Your task to perform on an android device: star an email in the gmail app Image 0: 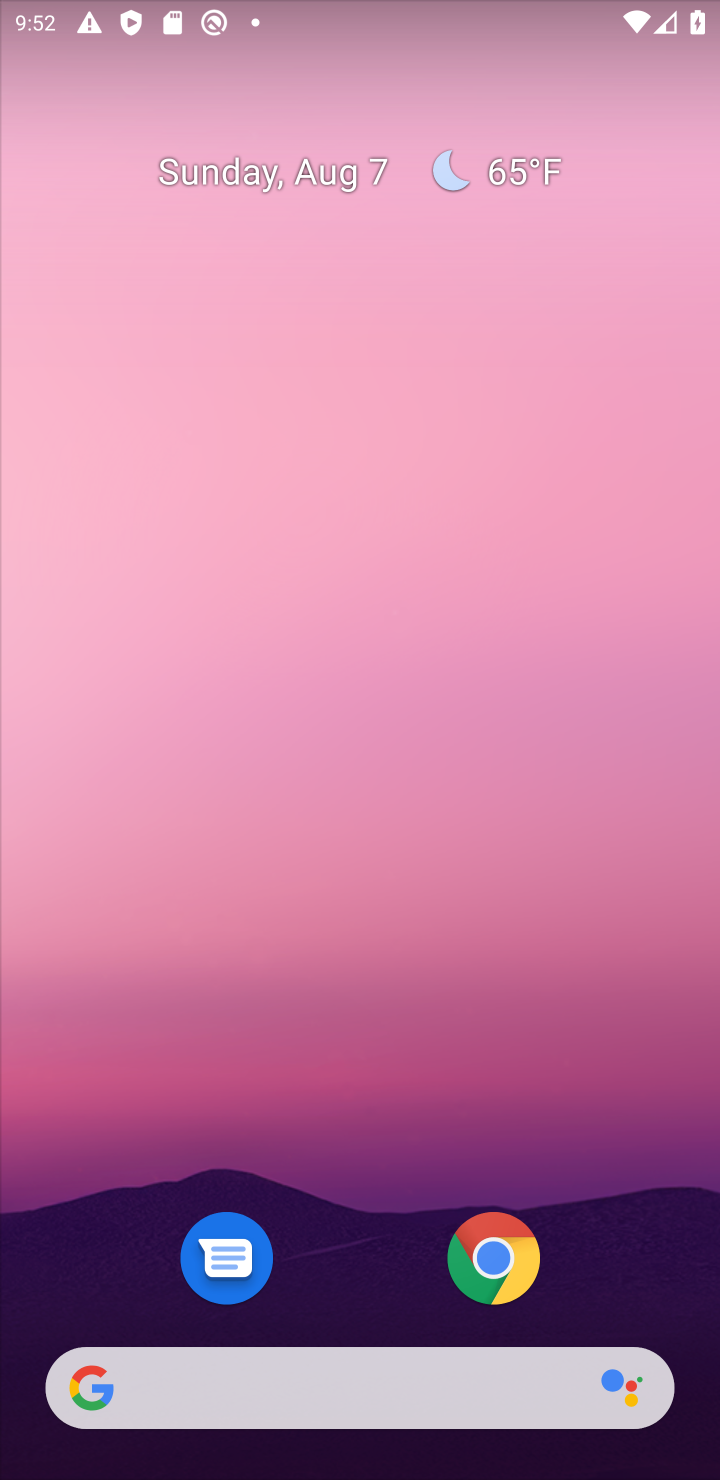
Step 0: press home button
Your task to perform on an android device: star an email in the gmail app Image 1: 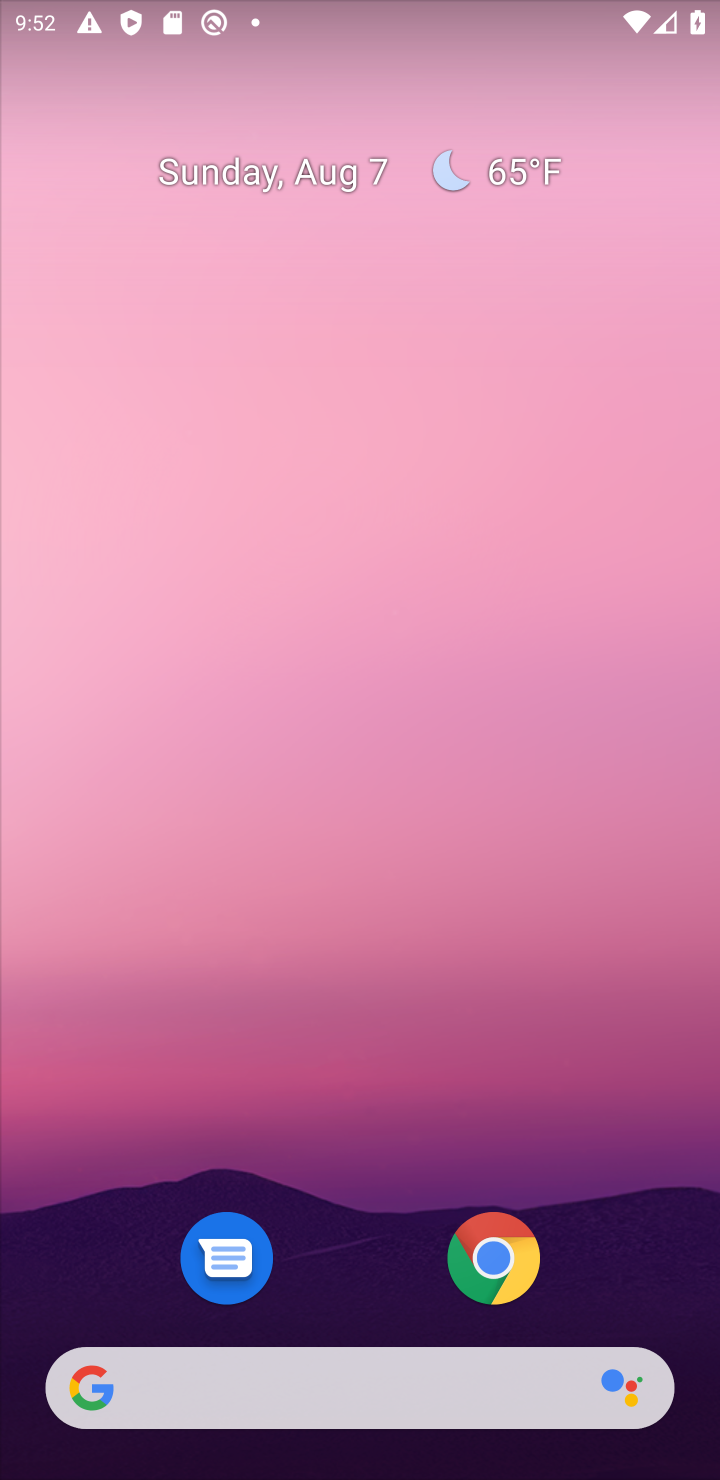
Step 1: press home button
Your task to perform on an android device: star an email in the gmail app Image 2: 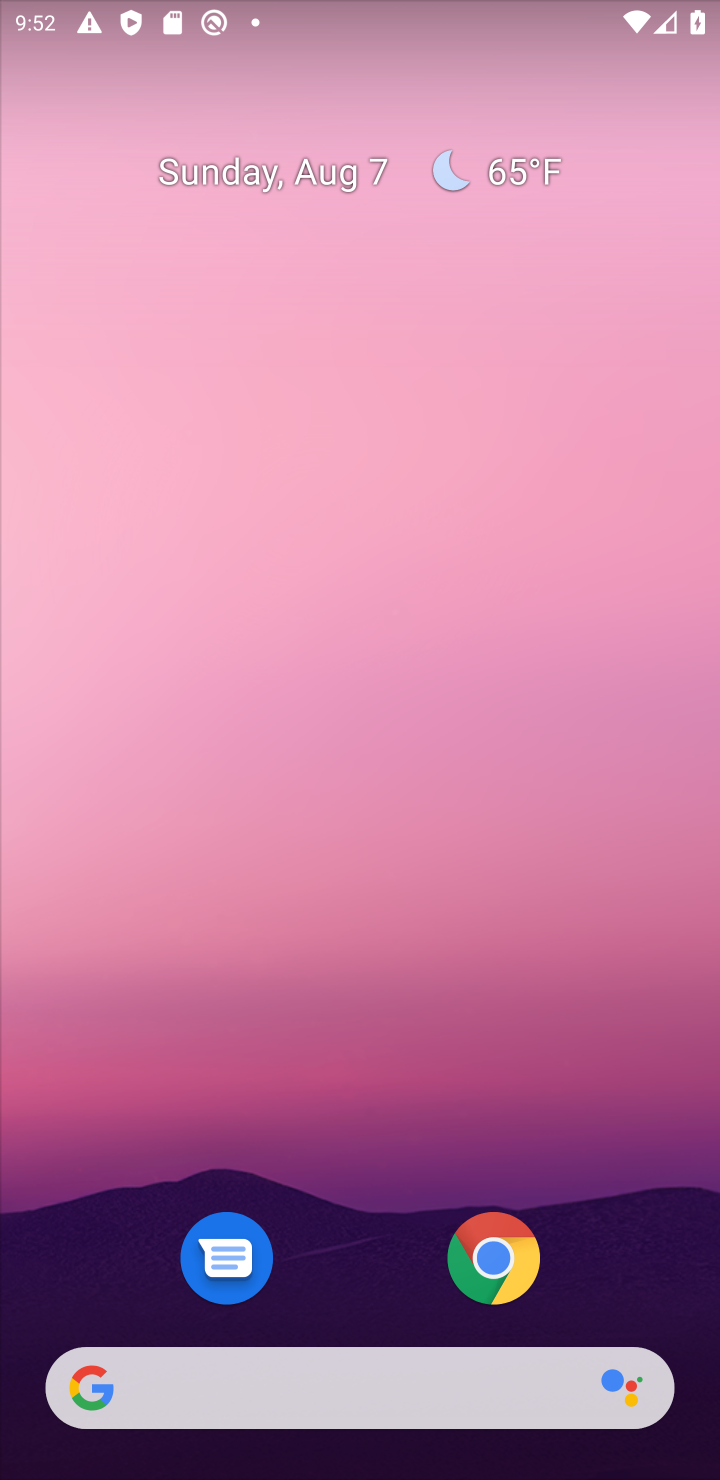
Step 2: drag from (376, 1105) to (345, 134)
Your task to perform on an android device: star an email in the gmail app Image 3: 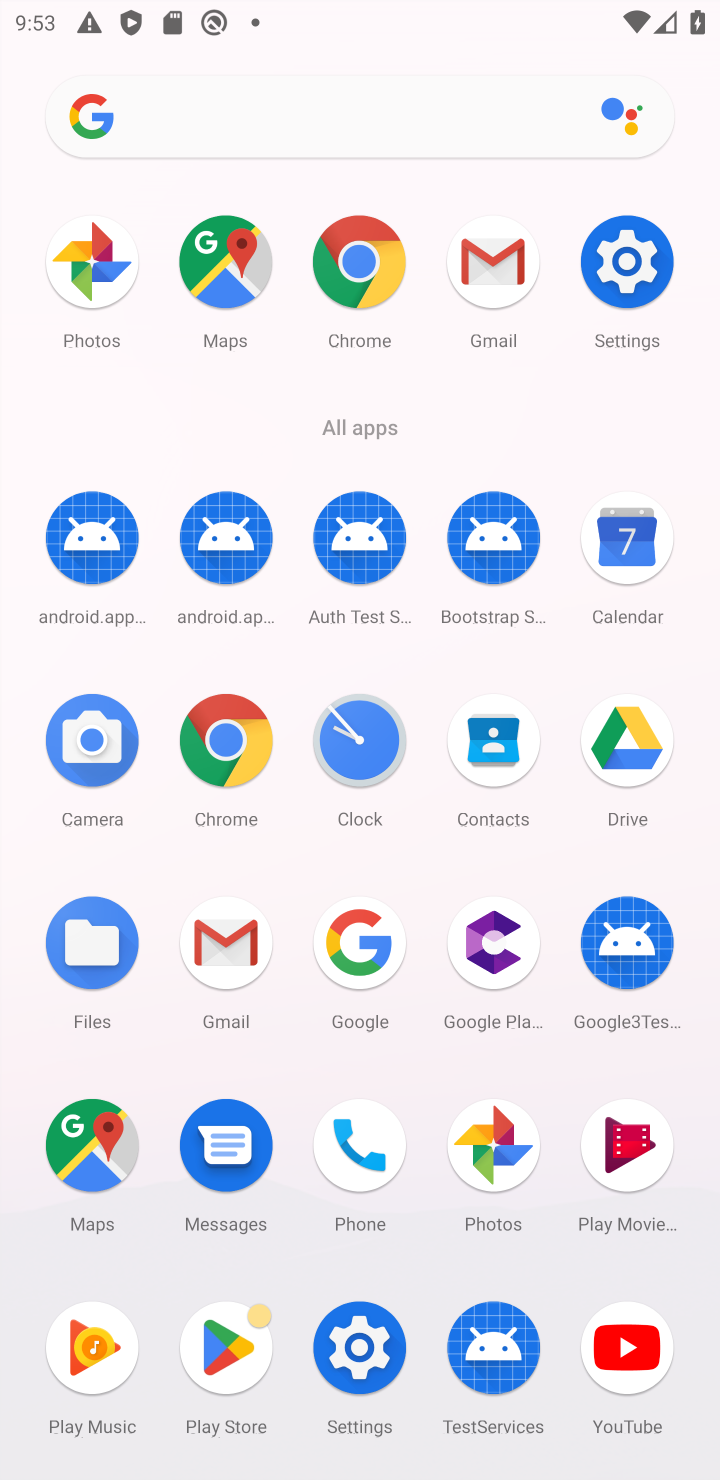
Step 3: click (526, 277)
Your task to perform on an android device: star an email in the gmail app Image 4: 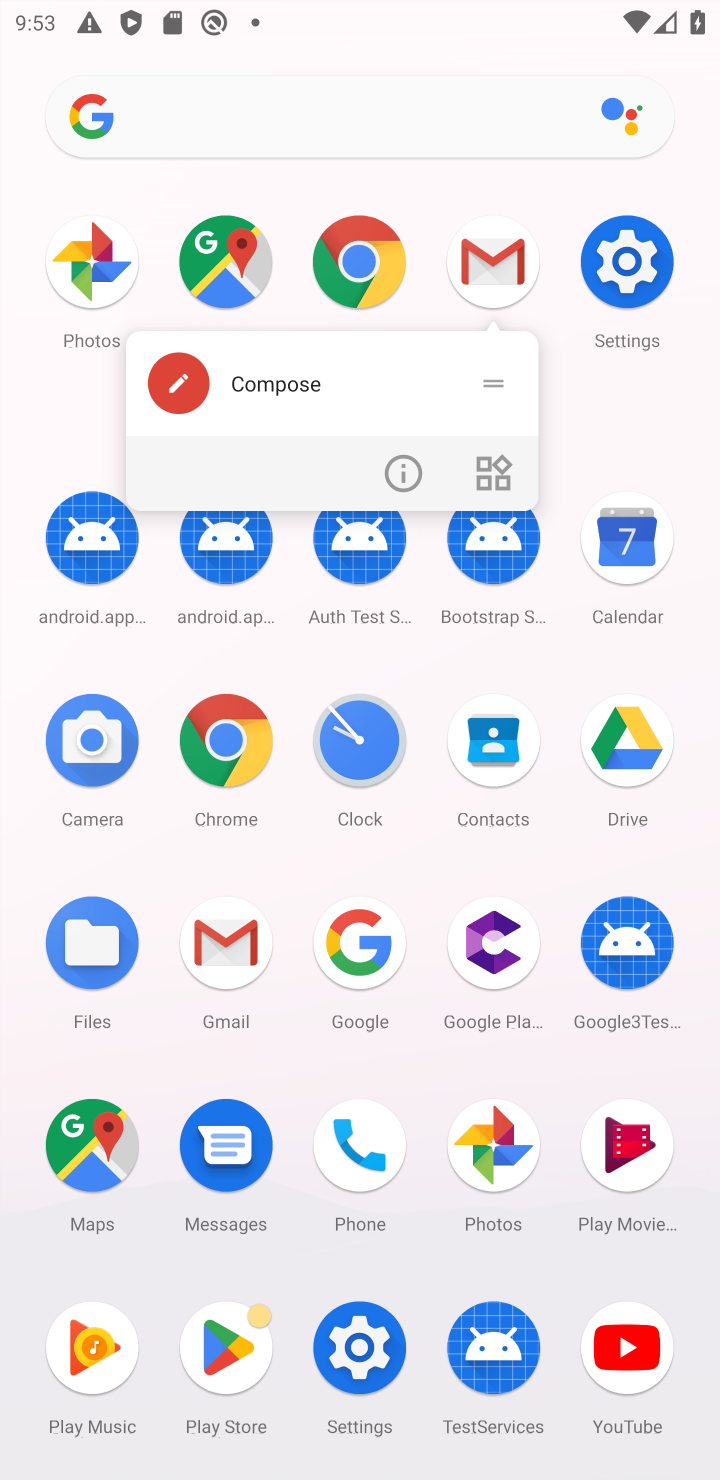
Step 4: click (479, 253)
Your task to perform on an android device: star an email in the gmail app Image 5: 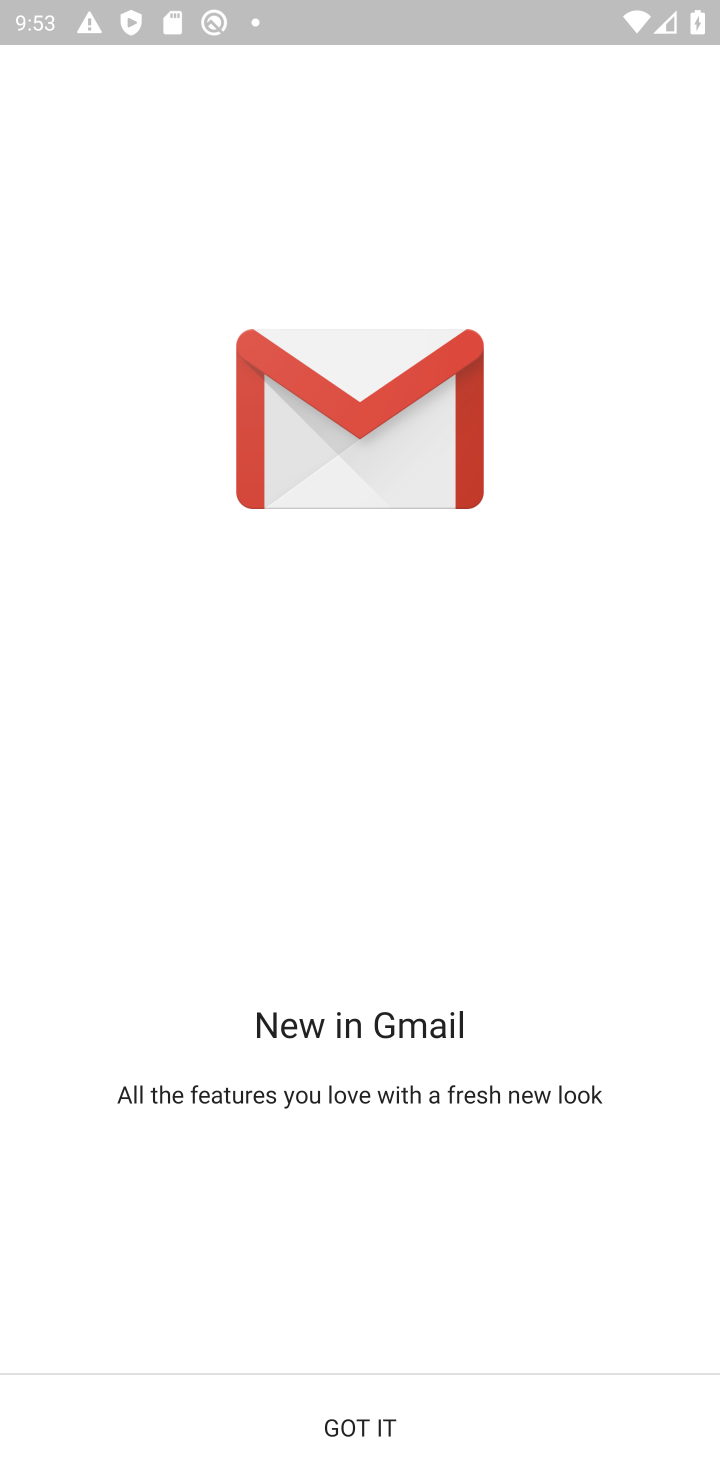
Step 5: click (474, 1428)
Your task to perform on an android device: star an email in the gmail app Image 6: 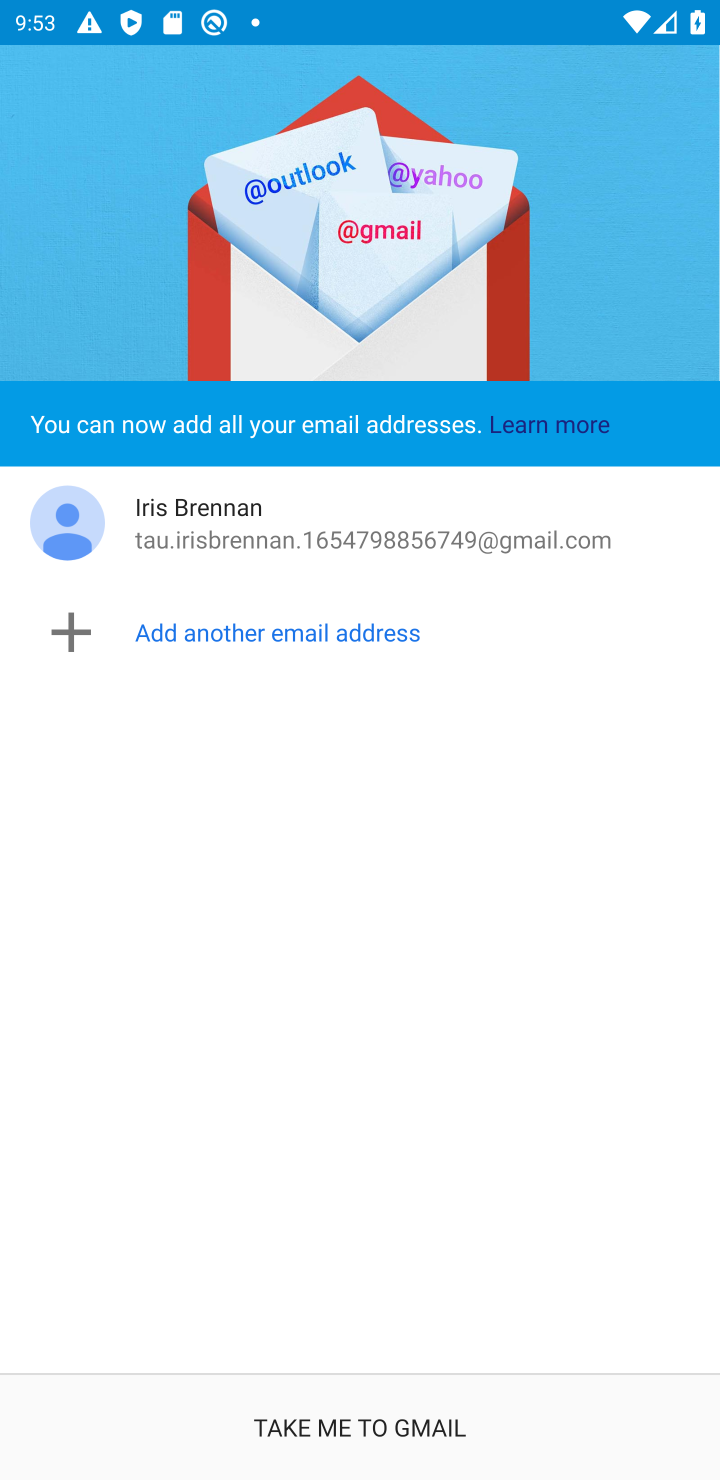
Step 6: click (474, 1428)
Your task to perform on an android device: star an email in the gmail app Image 7: 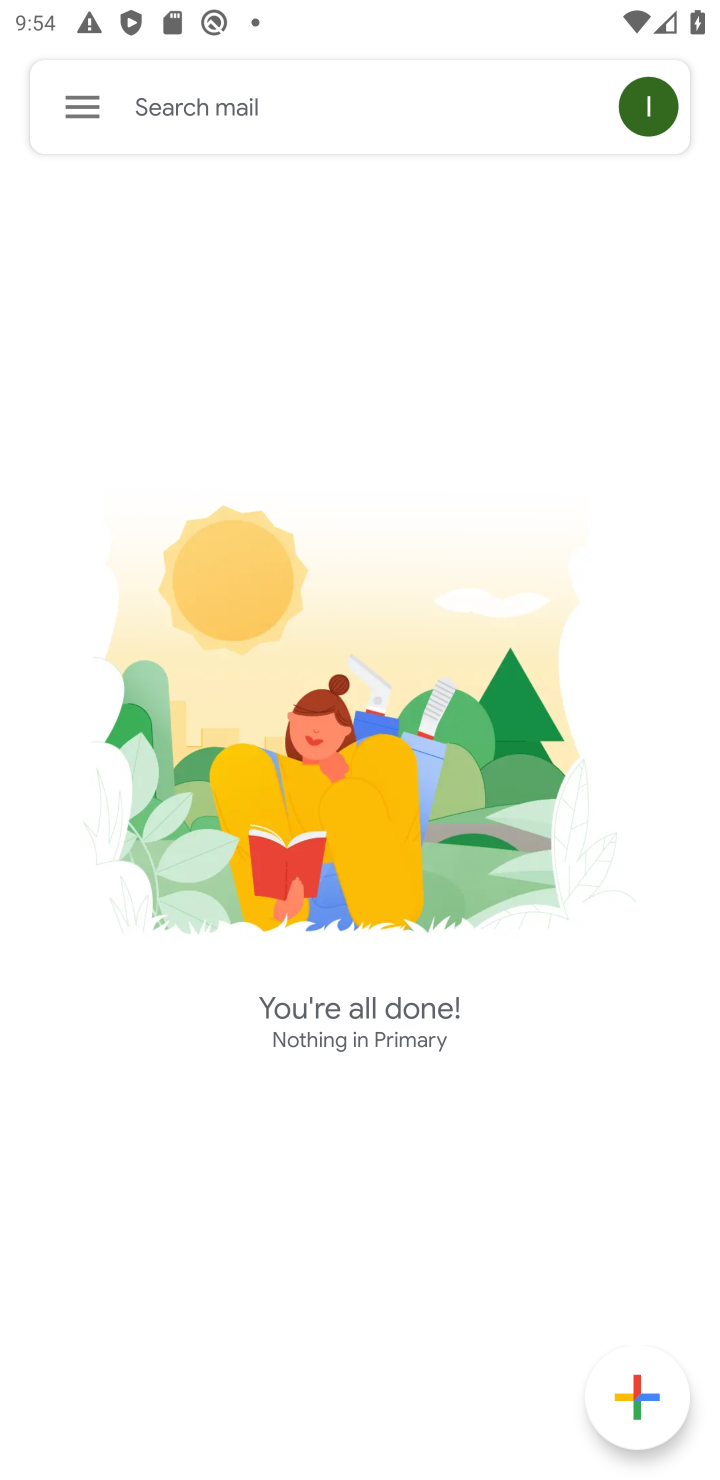
Step 7: click (80, 120)
Your task to perform on an android device: star an email in the gmail app Image 8: 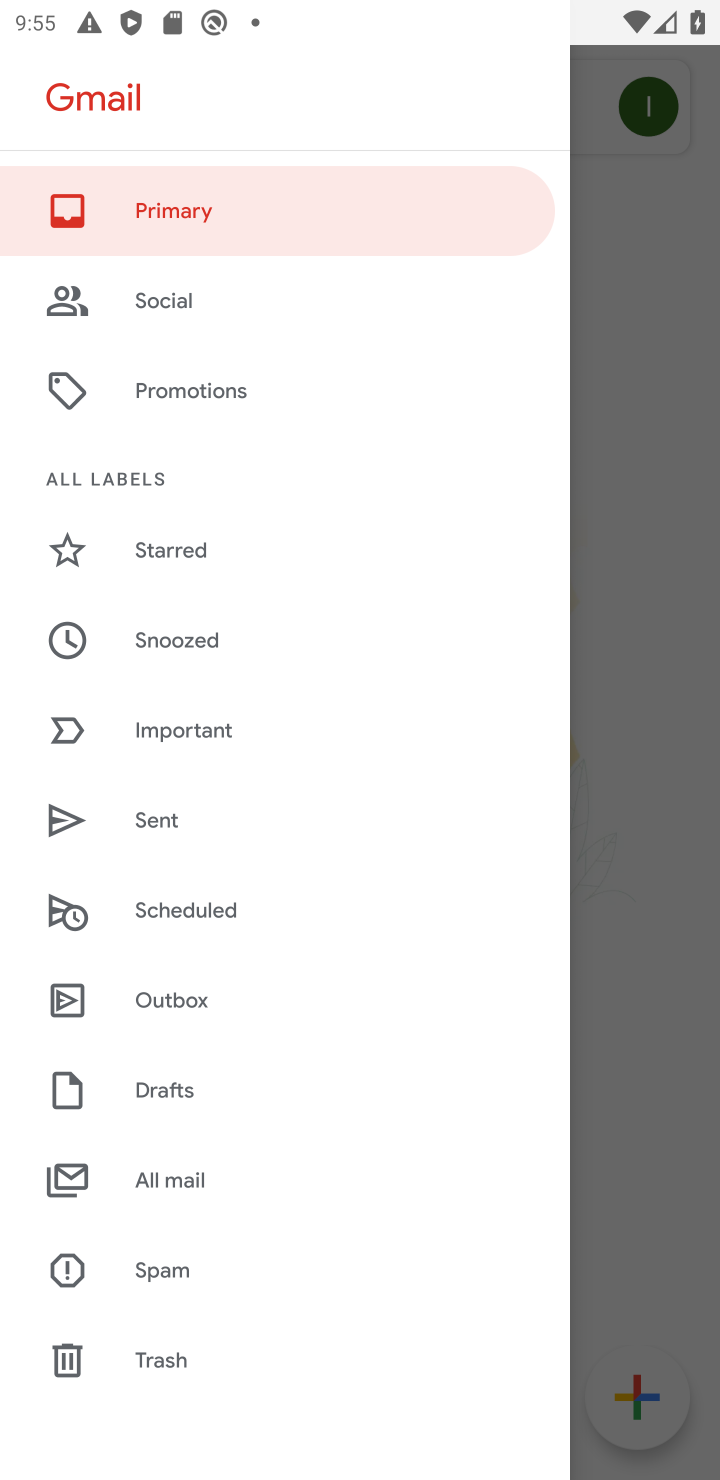
Step 8: click (176, 547)
Your task to perform on an android device: star an email in the gmail app Image 9: 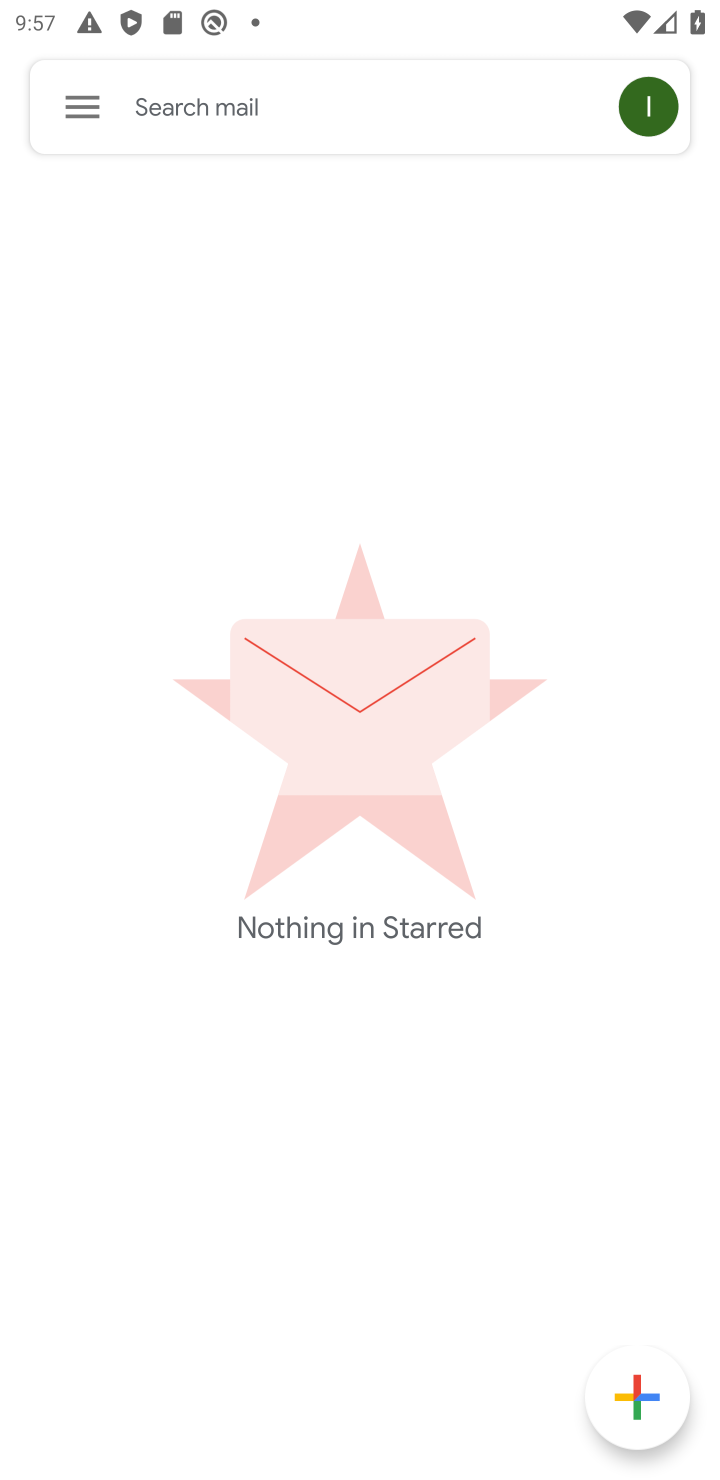
Step 9: task complete